Your task to perform on an android device: What is the news today? Image 0: 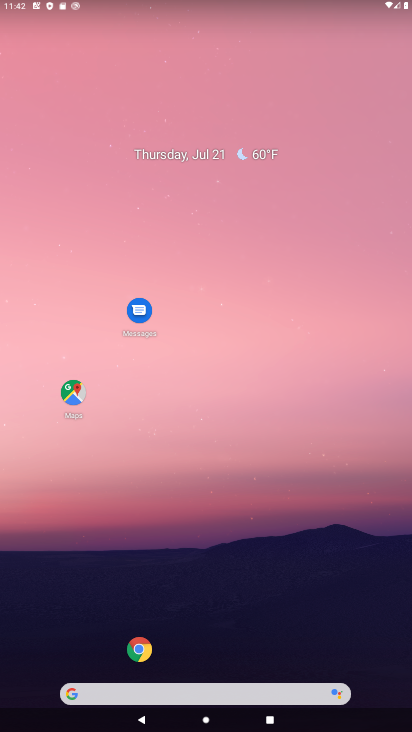
Step 0: click (96, 690)
Your task to perform on an android device: What is the news today? Image 1: 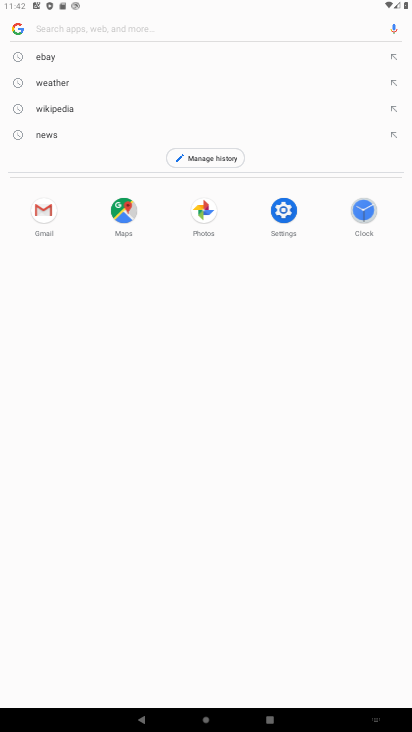
Step 1: type "What is the news today?"
Your task to perform on an android device: What is the news today? Image 2: 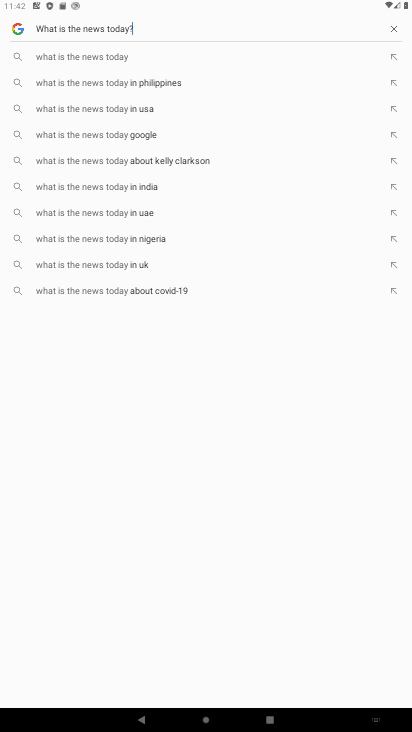
Step 2: type ""
Your task to perform on an android device: What is the news today? Image 3: 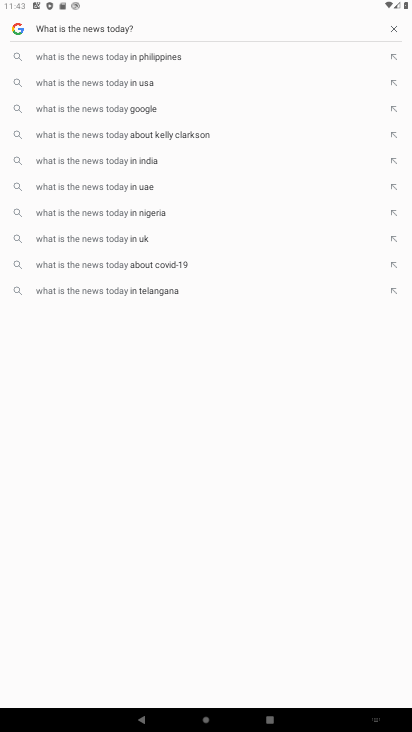
Step 3: task complete